Your task to perform on an android device: install app "Roku - Official Remote Control" Image 0: 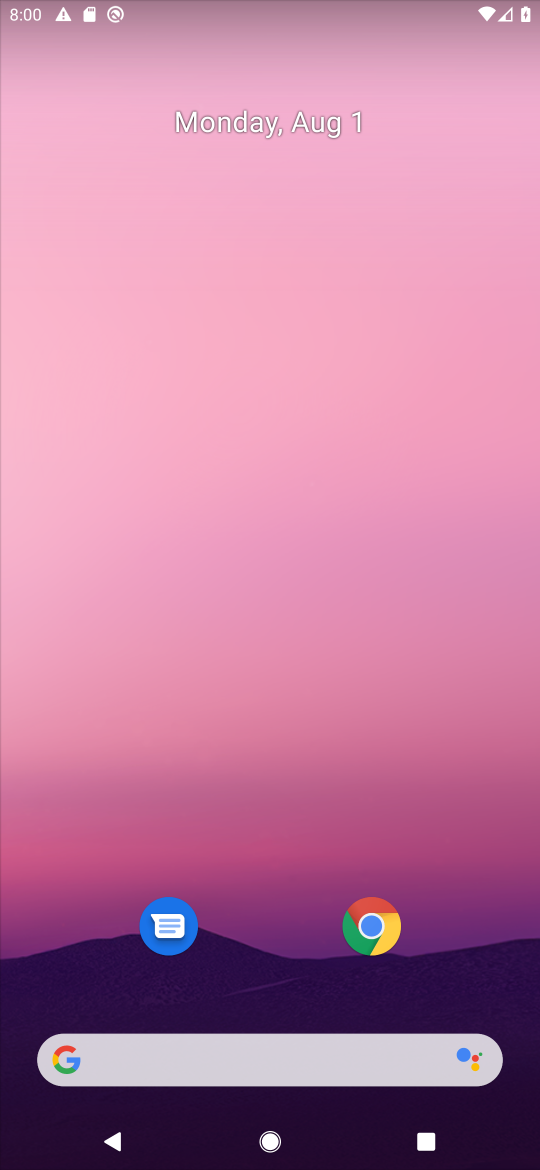
Step 0: drag from (279, 1002) to (398, 7)
Your task to perform on an android device: install app "Roku - Official Remote Control" Image 1: 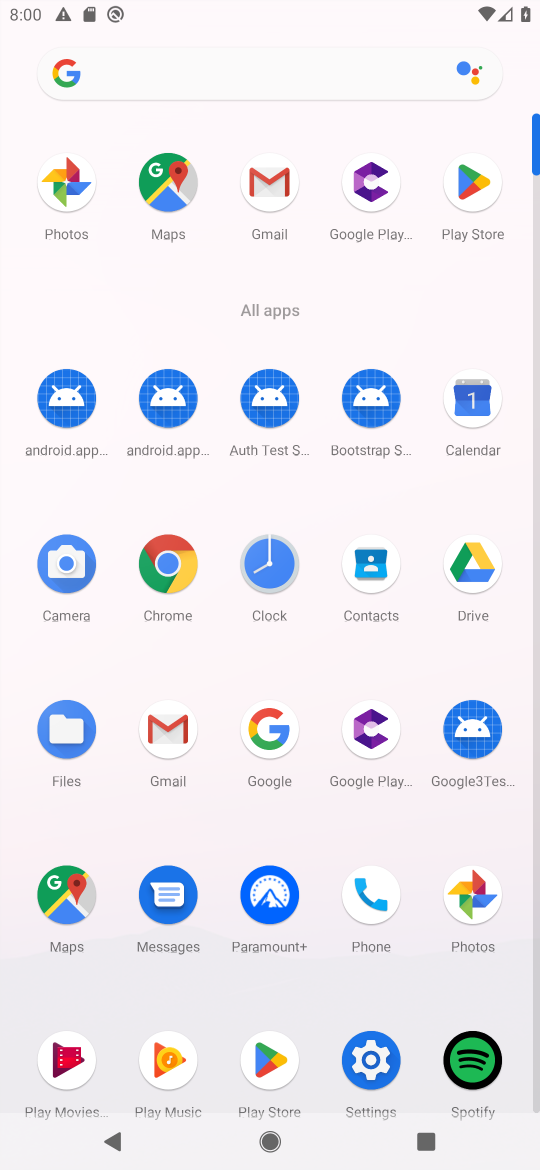
Step 1: click (466, 195)
Your task to perform on an android device: install app "Roku - Official Remote Control" Image 2: 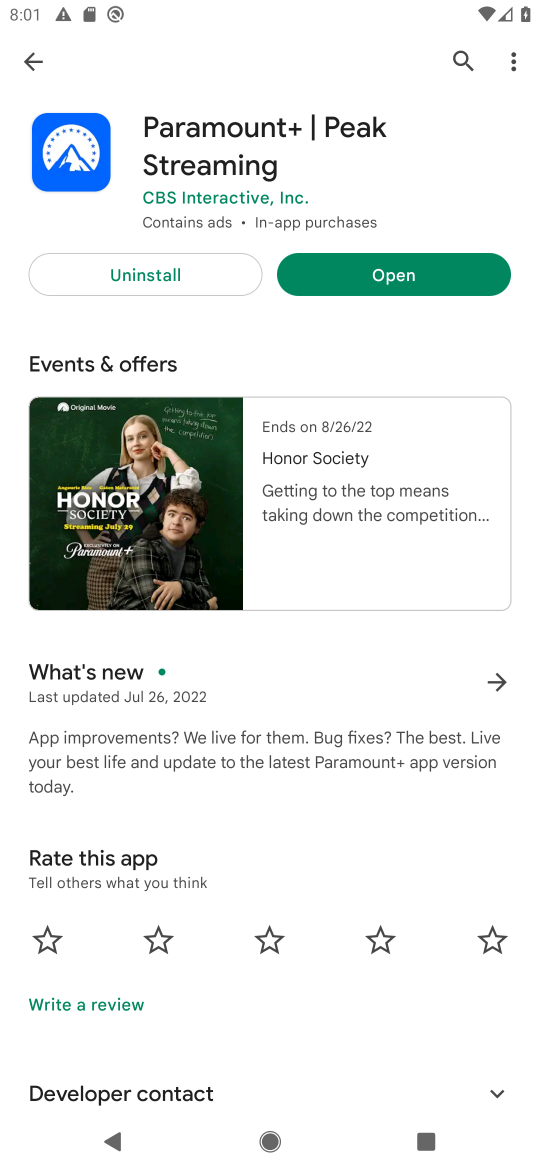
Step 2: click (456, 56)
Your task to perform on an android device: install app "Roku - Official Remote Control" Image 3: 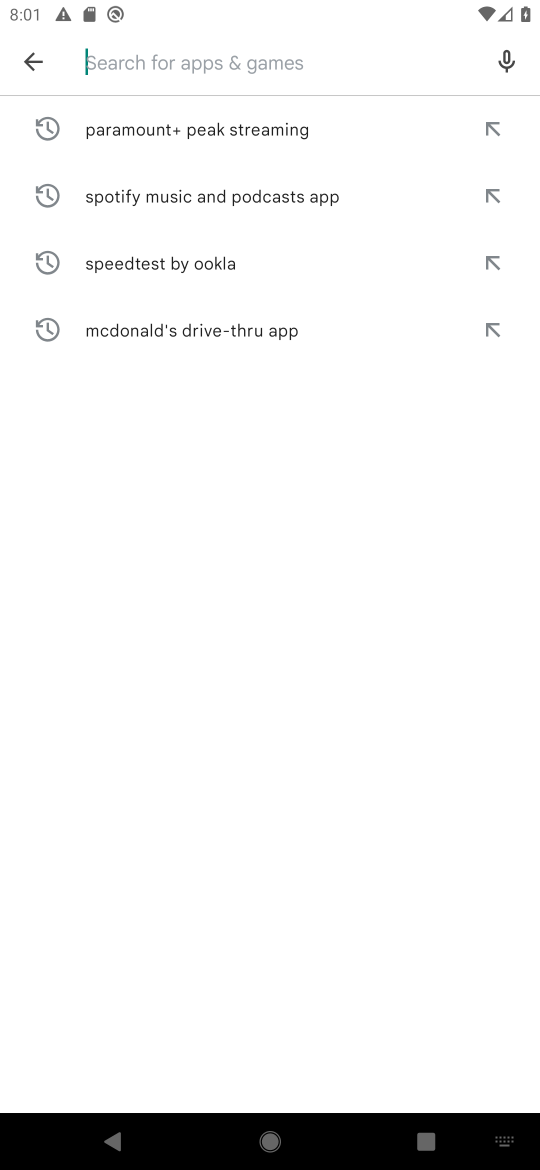
Step 3: type "Roku - Official Remote Control"
Your task to perform on an android device: install app "Roku - Official Remote Control" Image 4: 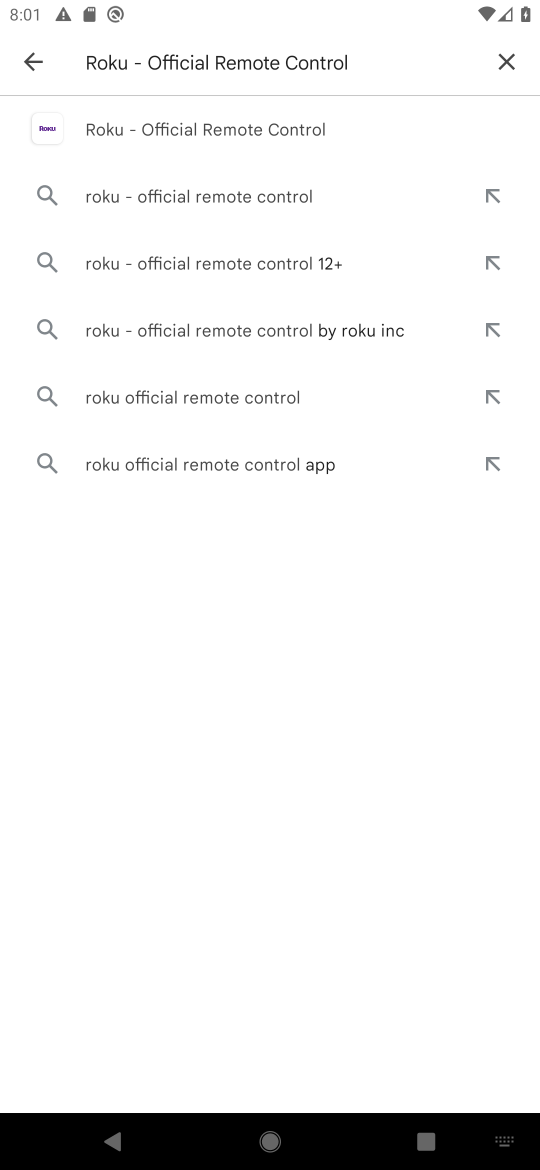
Step 4: click (289, 131)
Your task to perform on an android device: install app "Roku - Official Remote Control" Image 5: 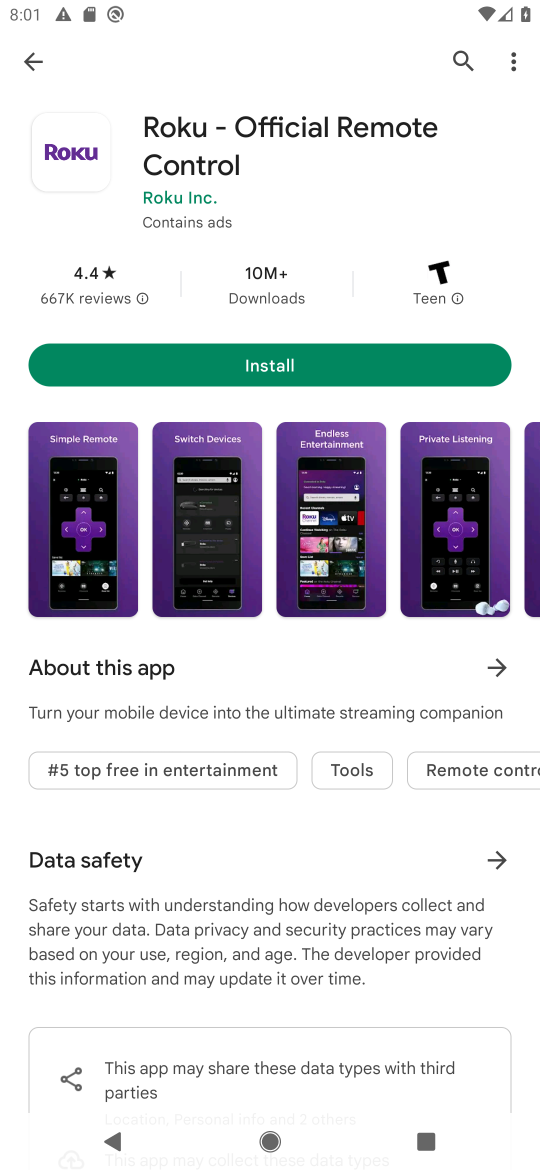
Step 5: click (259, 358)
Your task to perform on an android device: install app "Roku - Official Remote Control" Image 6: 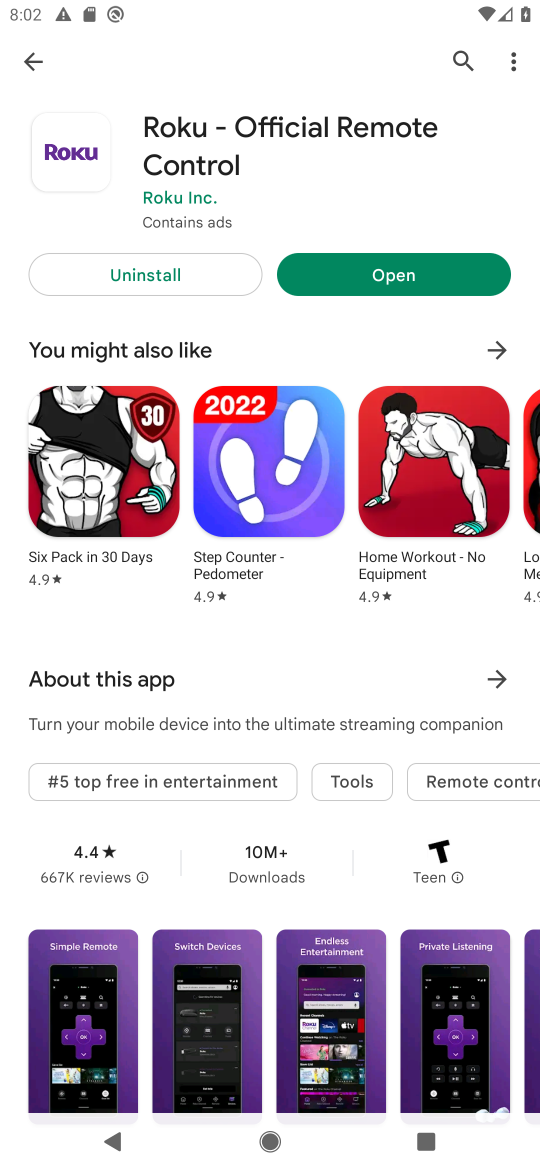
Step 6: click (394, 273)
Your task to perform on an android device: install app "Roku - Official Remote Control" Image 7: 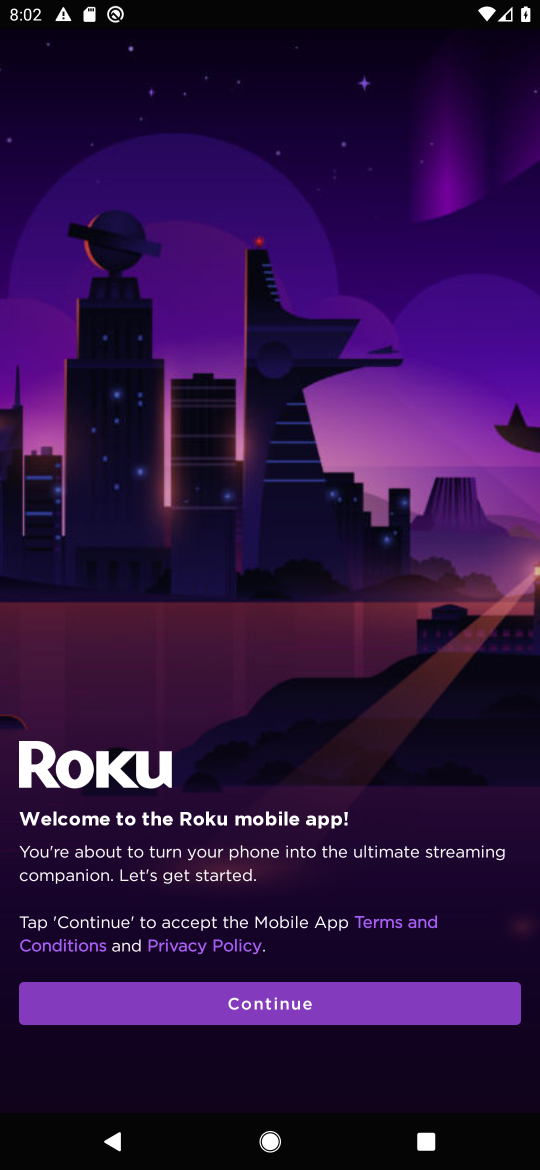
Step 7: click (288, 1005)
Your task to perform on an android device: install app "Roku - Official Remote Control" Image 8: 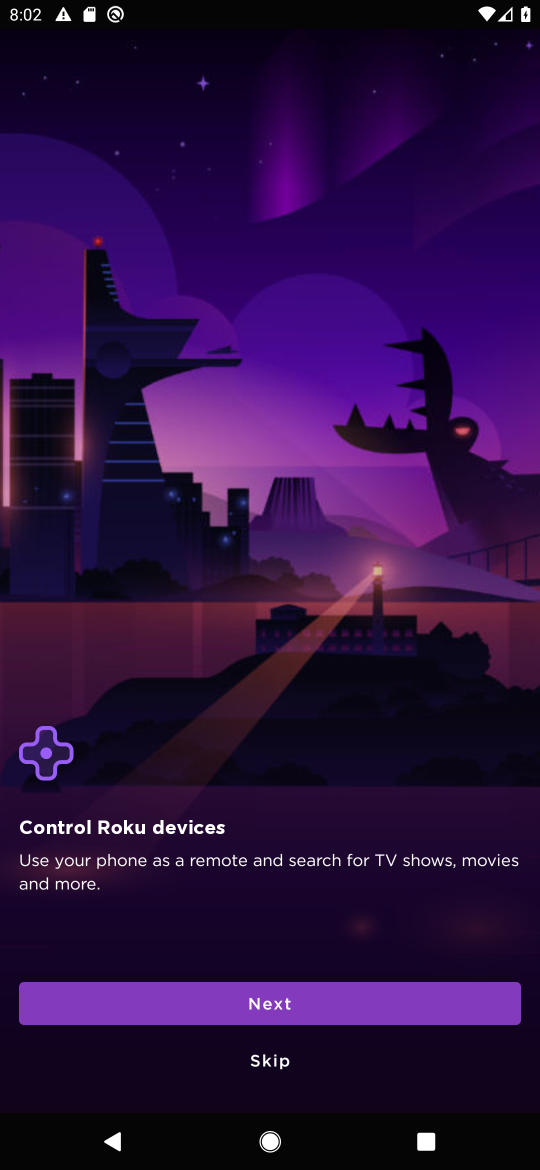
Step 8: click (272, 1056)
Your task to perform on an android device: install app "Roku - Official Remote Control" Image 9: 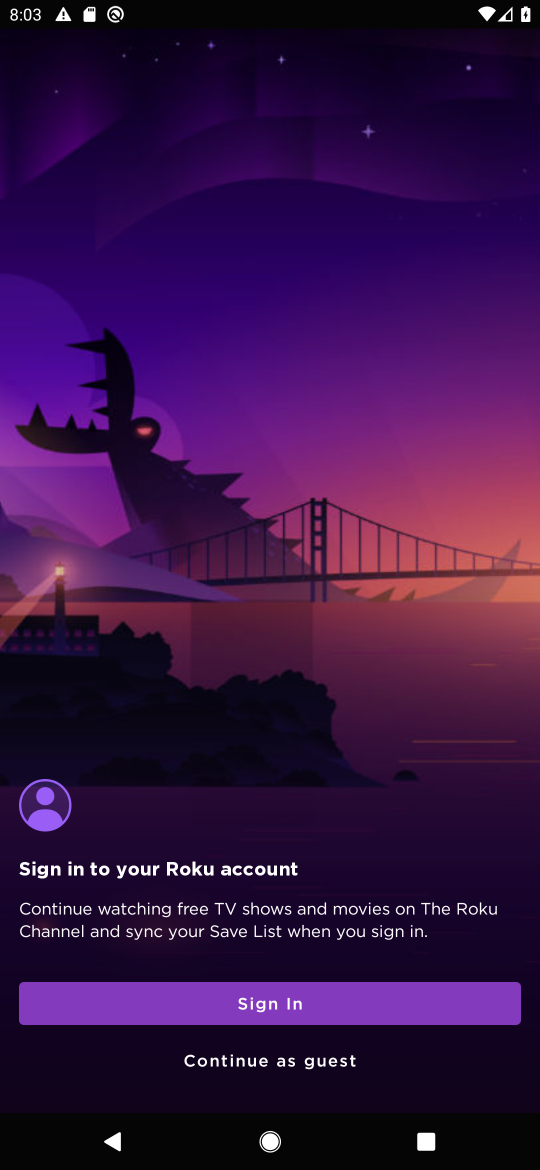
Step 9: click (271, 1055)
Your task to perform on an android device: install app "Roku - Official Remote Control" Image 10: 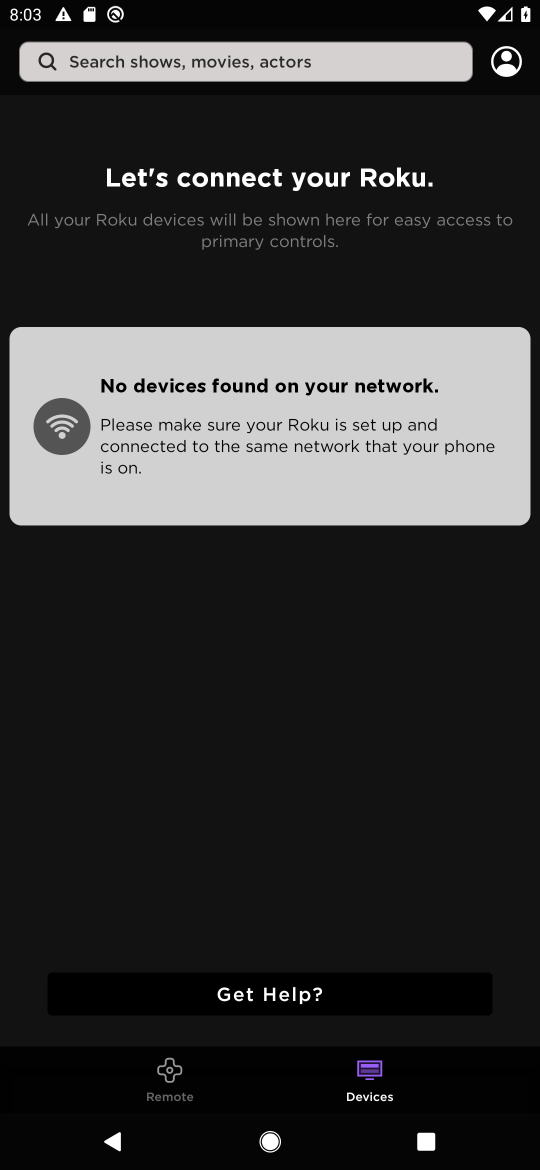
Step 10: task complete